Your task to perform on an android device: manage bookmarks in the chrome app Image 0: 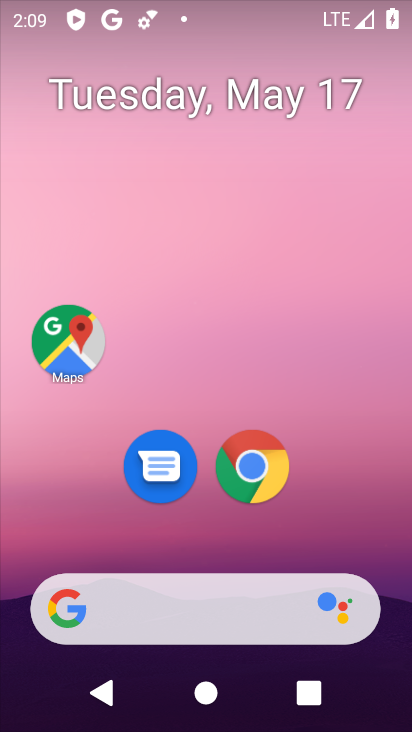
Step 0: click (253, 469)
Your task to perform on an android device: manage bookmarks in the chrome app Image 1: 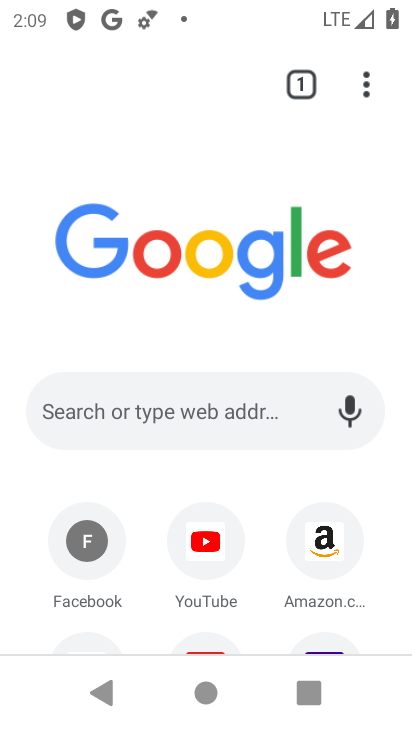
Step 1: task complete